Your task to perform on an android device: Search for the best gaming monitor on Best Buy Image 0: 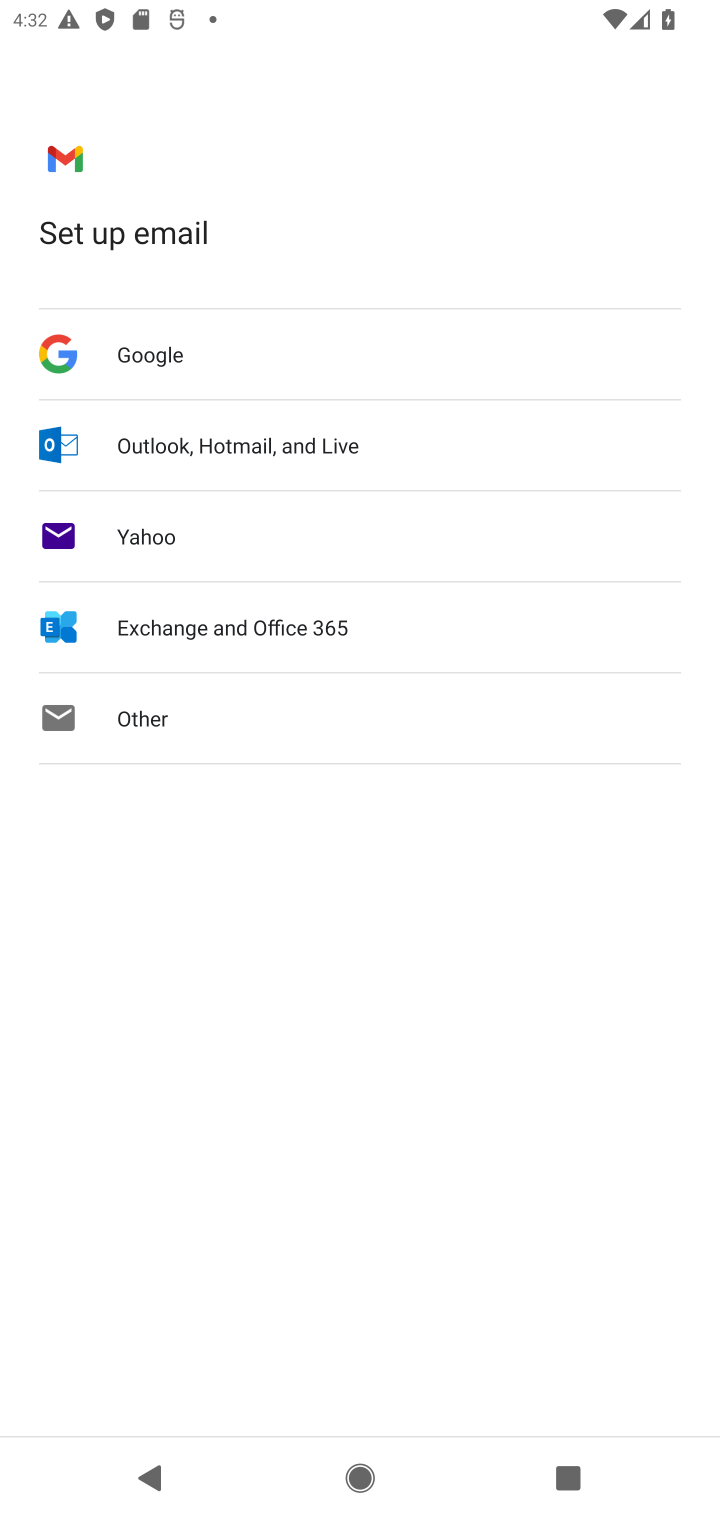
Step 0: press home button
Your task to perform on an android device: Search for the best gaming monitor on Best Buy Image 1: 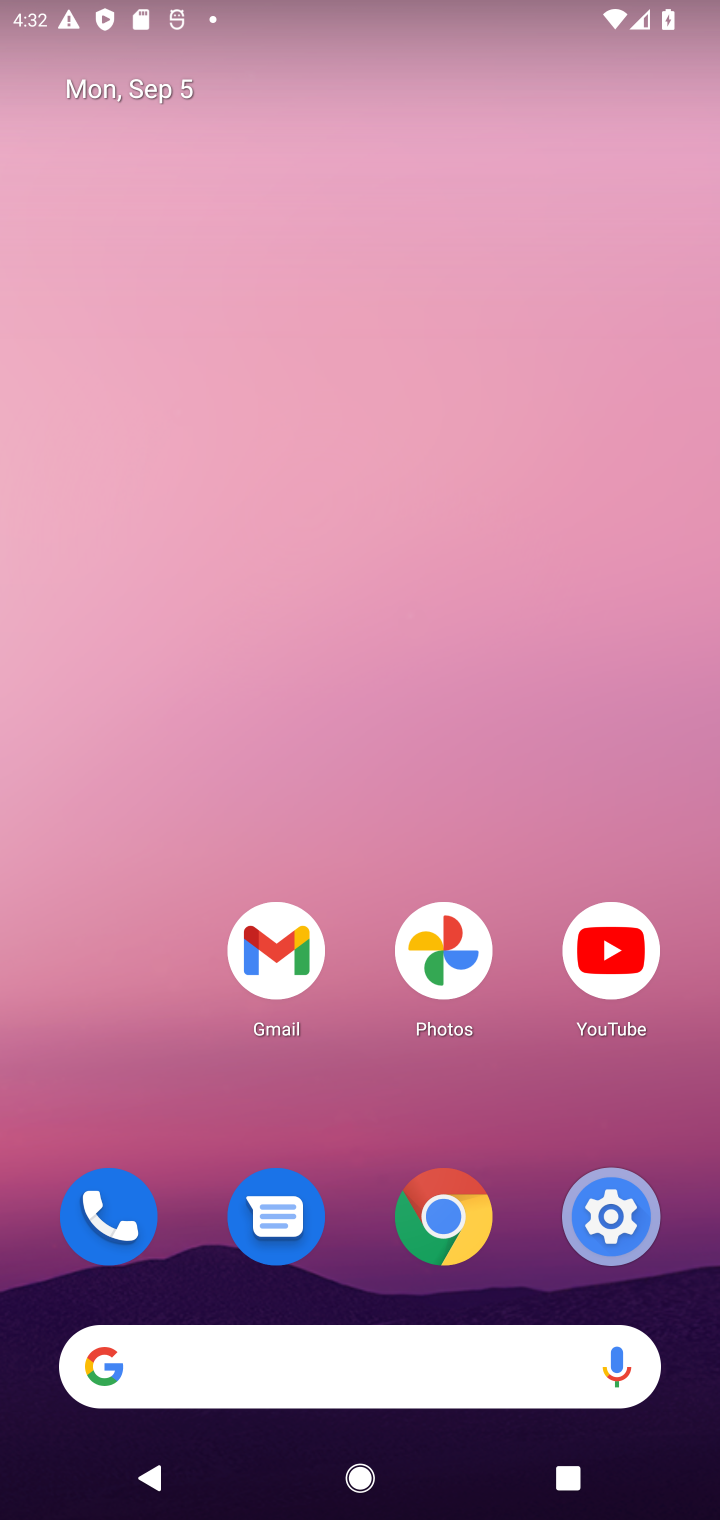
Step 1: click (97, 1364)
Your task to perform on an android device: Search for the best gaming monitor on Best Buy Image 2: 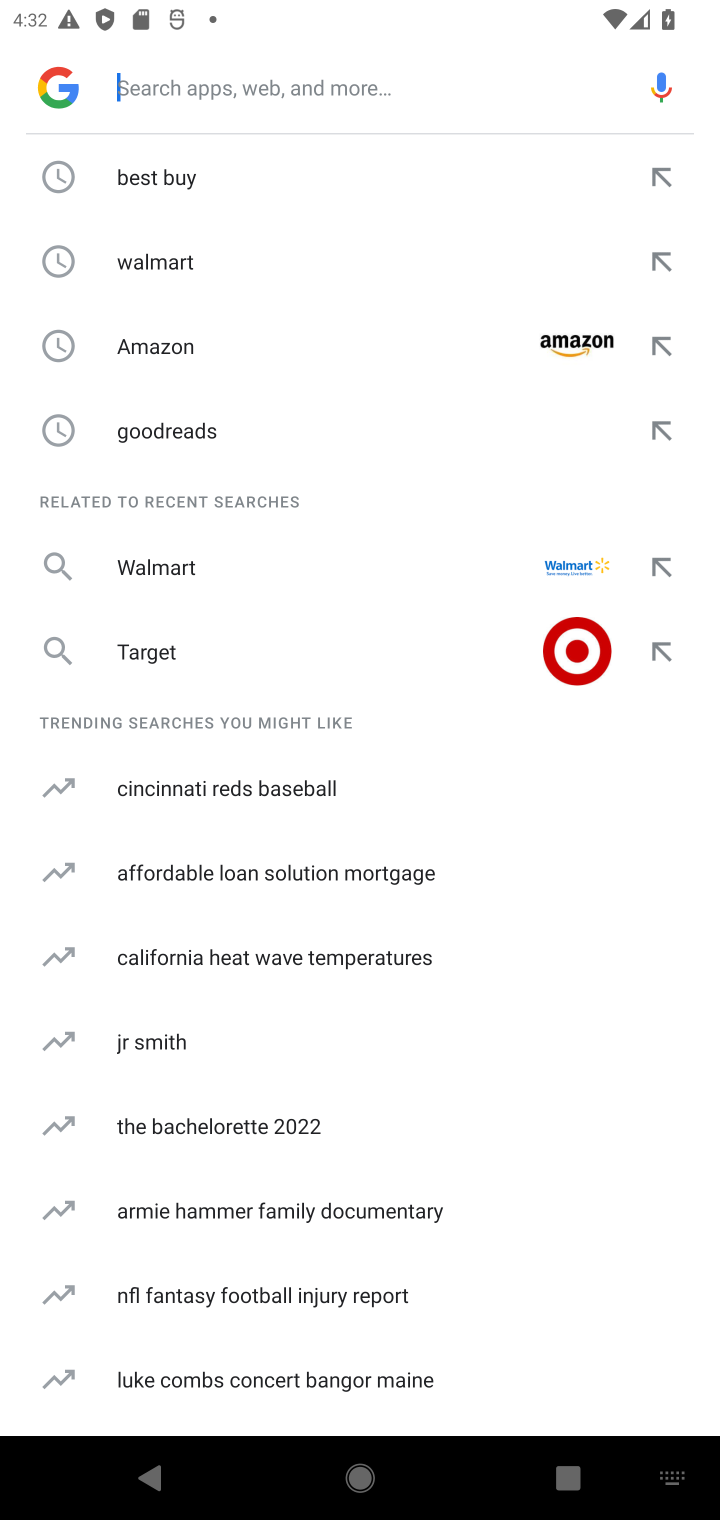
Step 2: type "Best Buy"
Your task to perform on an android device: Search for the best gaming monitor on Best Buy Image 3: 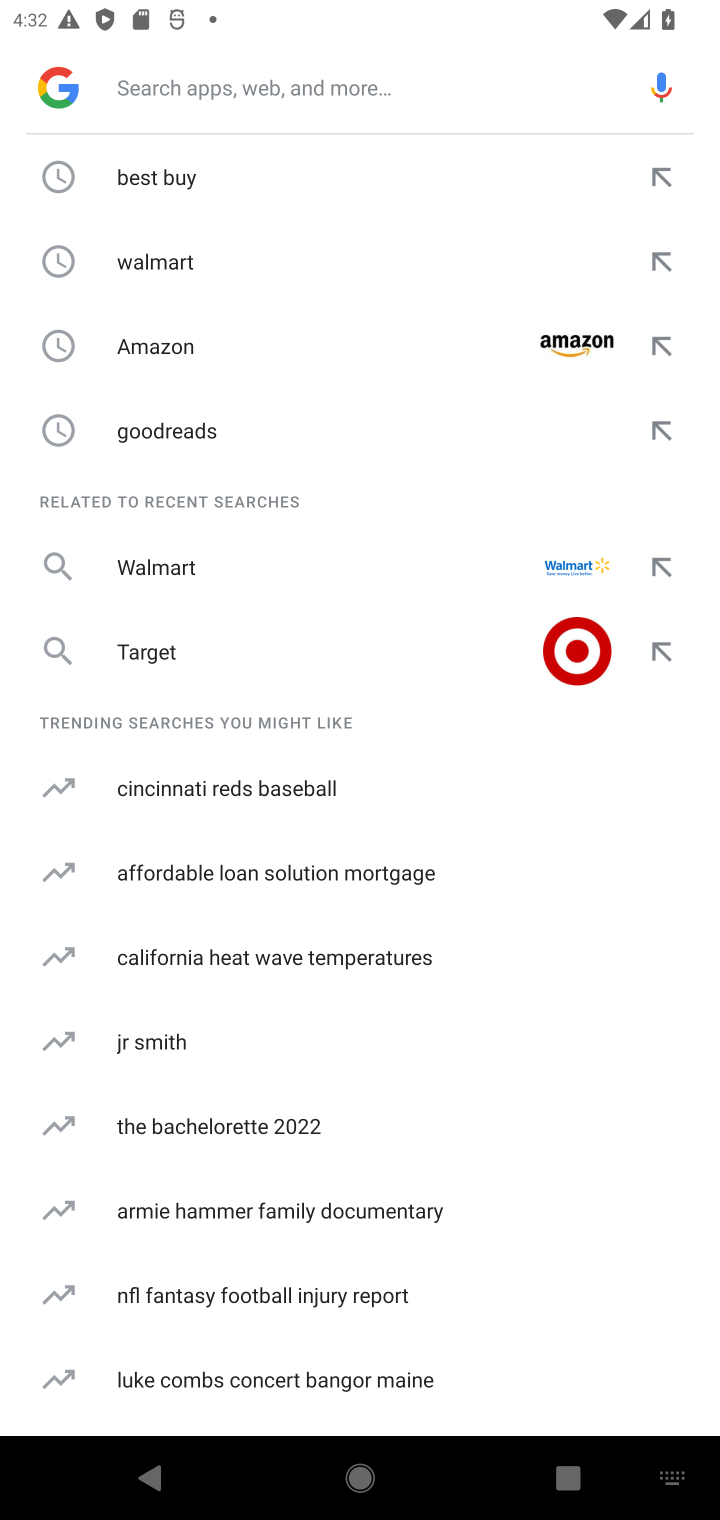
Step 3: click (200, 89)
Your task to perform on an android device: Search for the best gaming monitor on Best Buy Image 4: 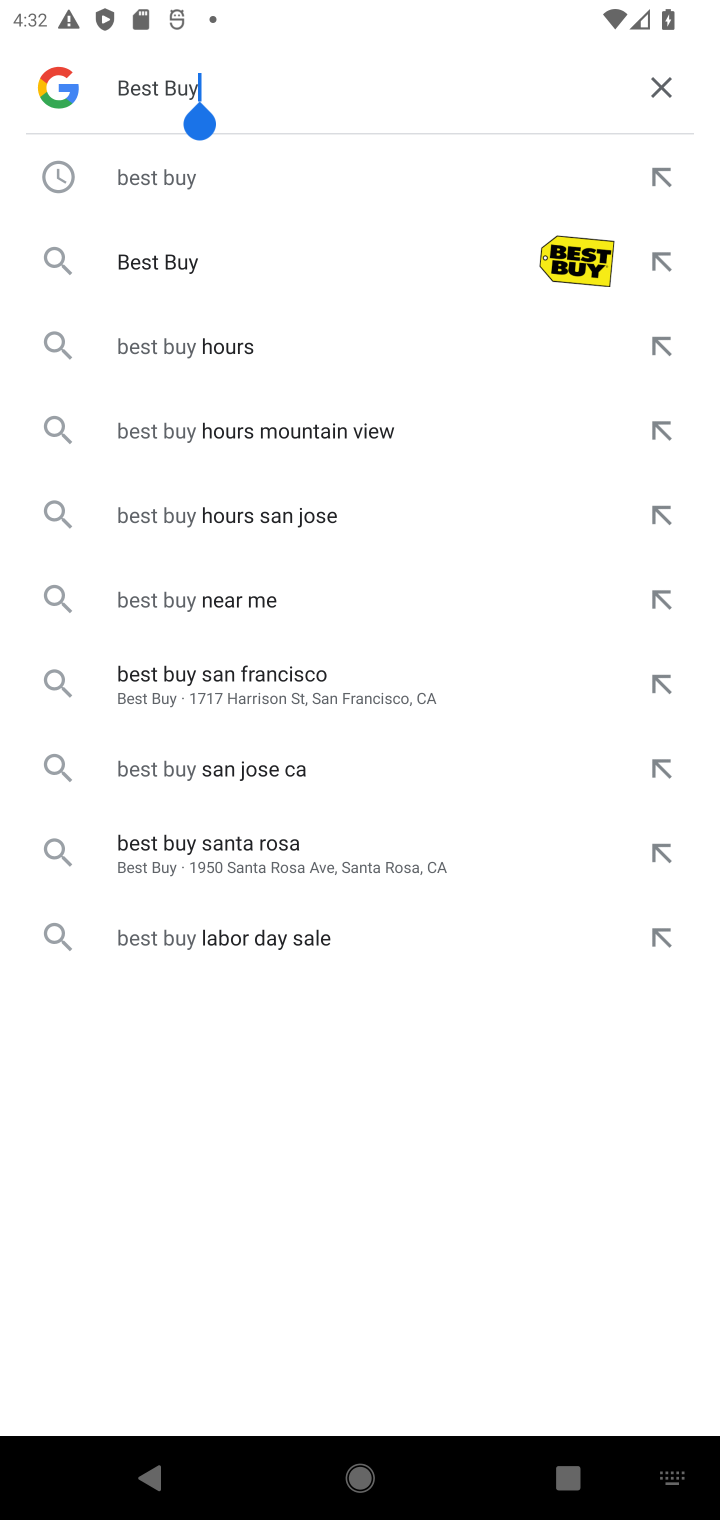
Step 4: press enter
Your task to perform on an android device: Search for the best gaming monitor on Best Buy Image 5: 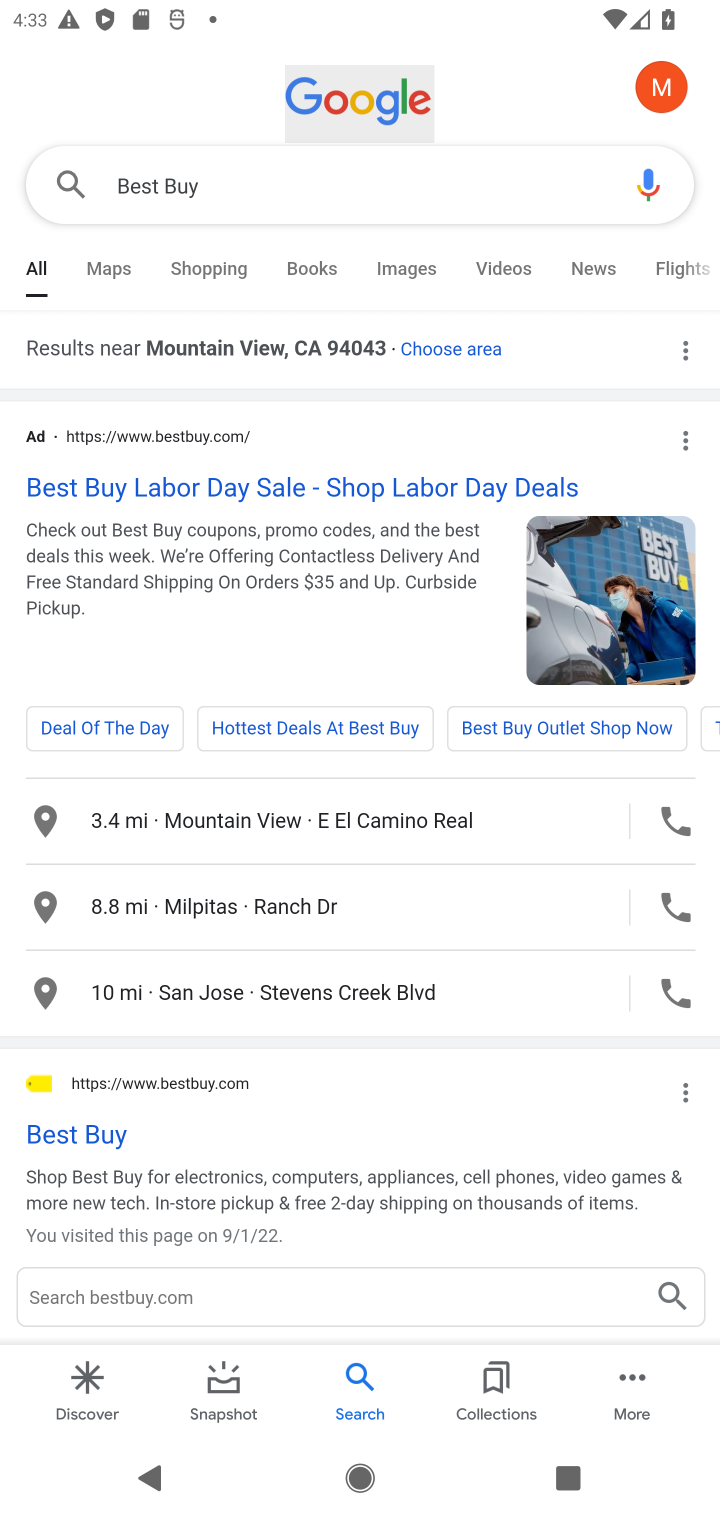
Step 5: click (57, 1126)
Your task to perform on an android device: Search for the best gaming monitor on Best Buy Image 6: 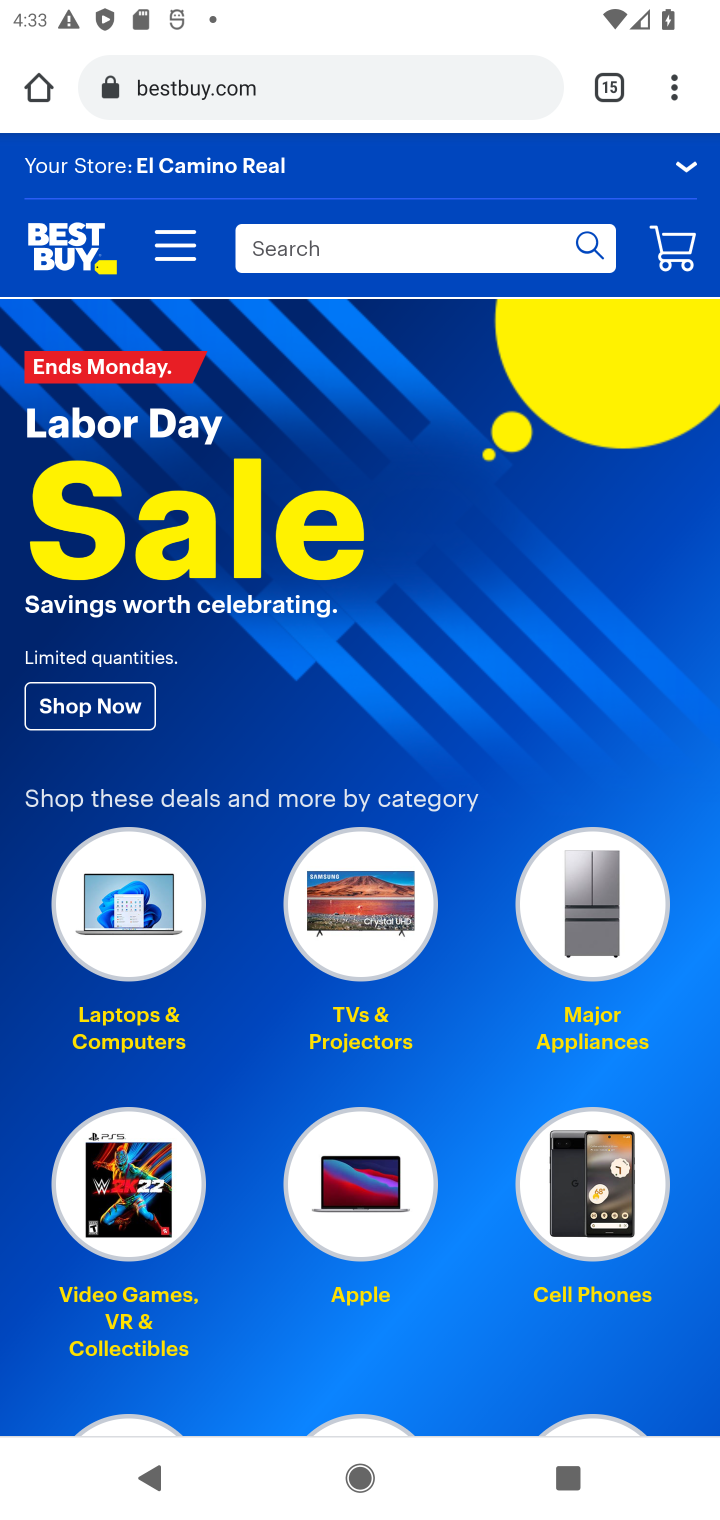
Step 6: click (355, 237)
Your task to perform on an android device: Search for the best gaming monitor on Best Buy Image 7: 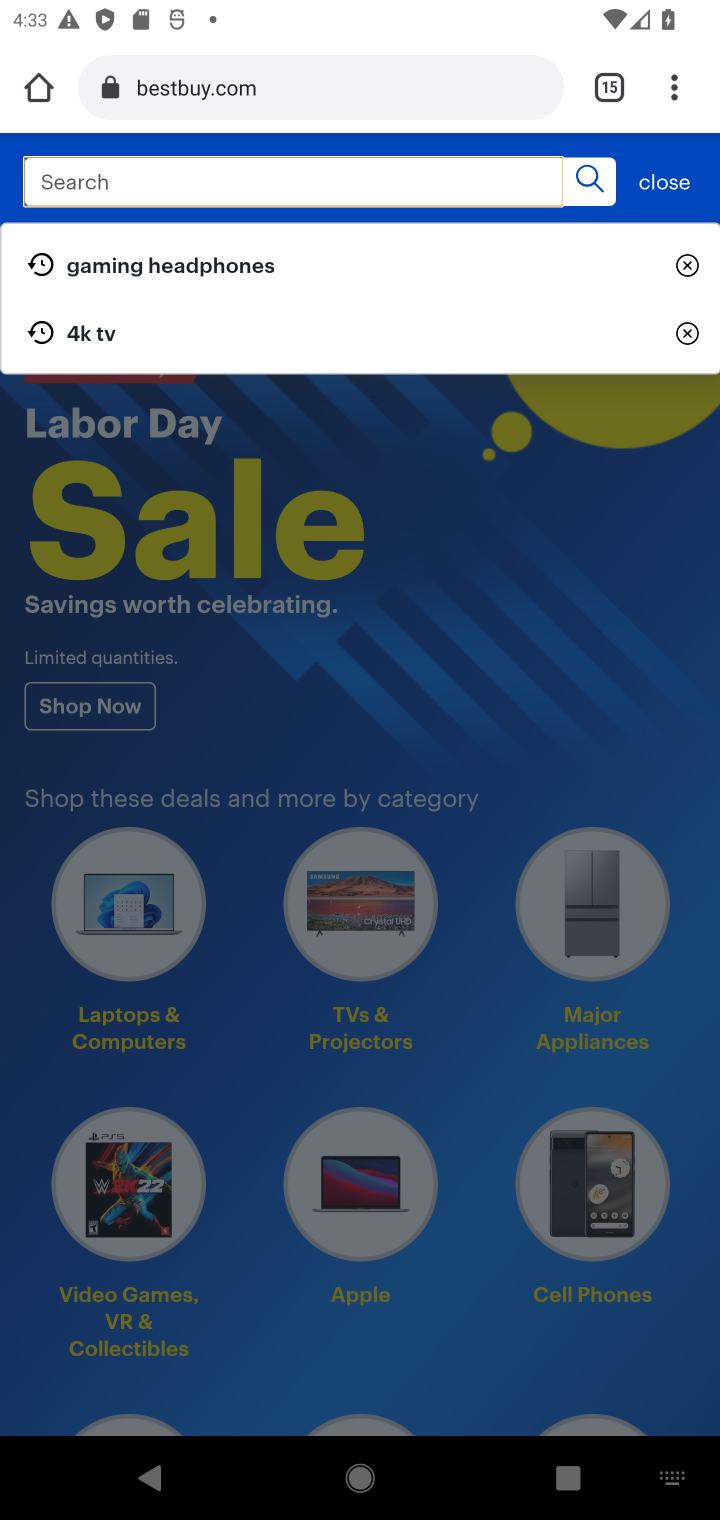
Step 7: type "gaming monitor"
Your task to perform on an android device: Search for the best gaming monitor on Best Buy Image 8: 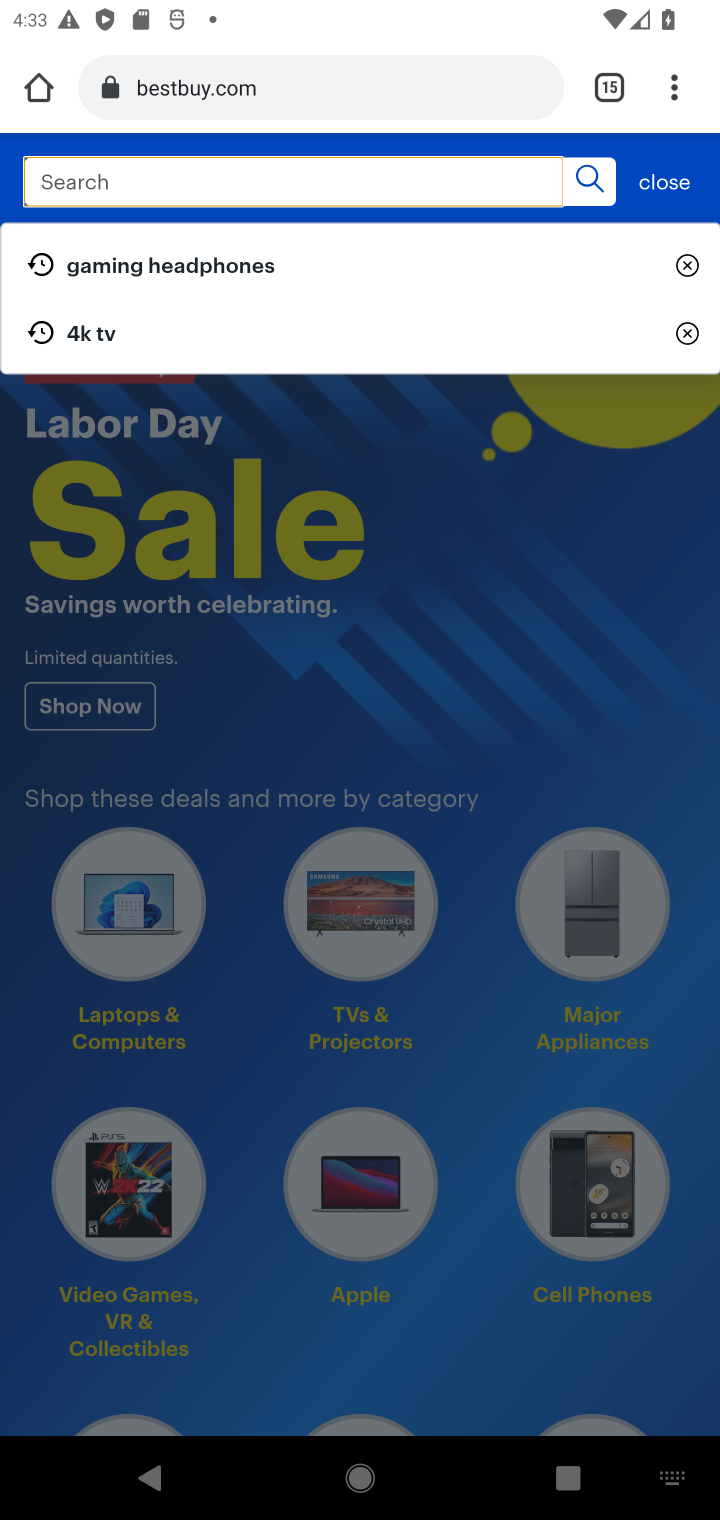
Step 8: click (223, 182)
Your task to perform on an android device: Search for the best gaming monitor on Best Buy Image 9: 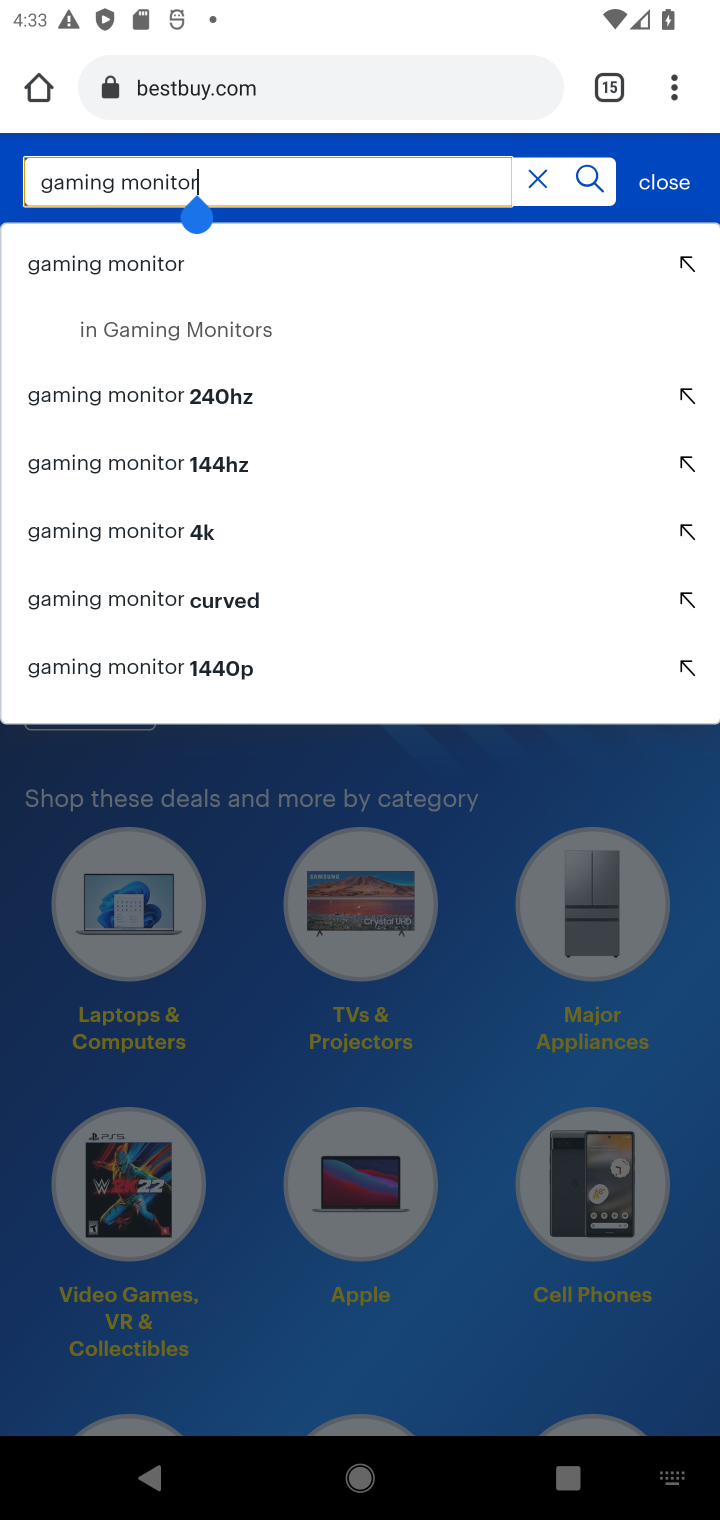
Step 9: press enter
Your task to perform on an android device: Search for the best gaming monitor on Best Buy Image 10: 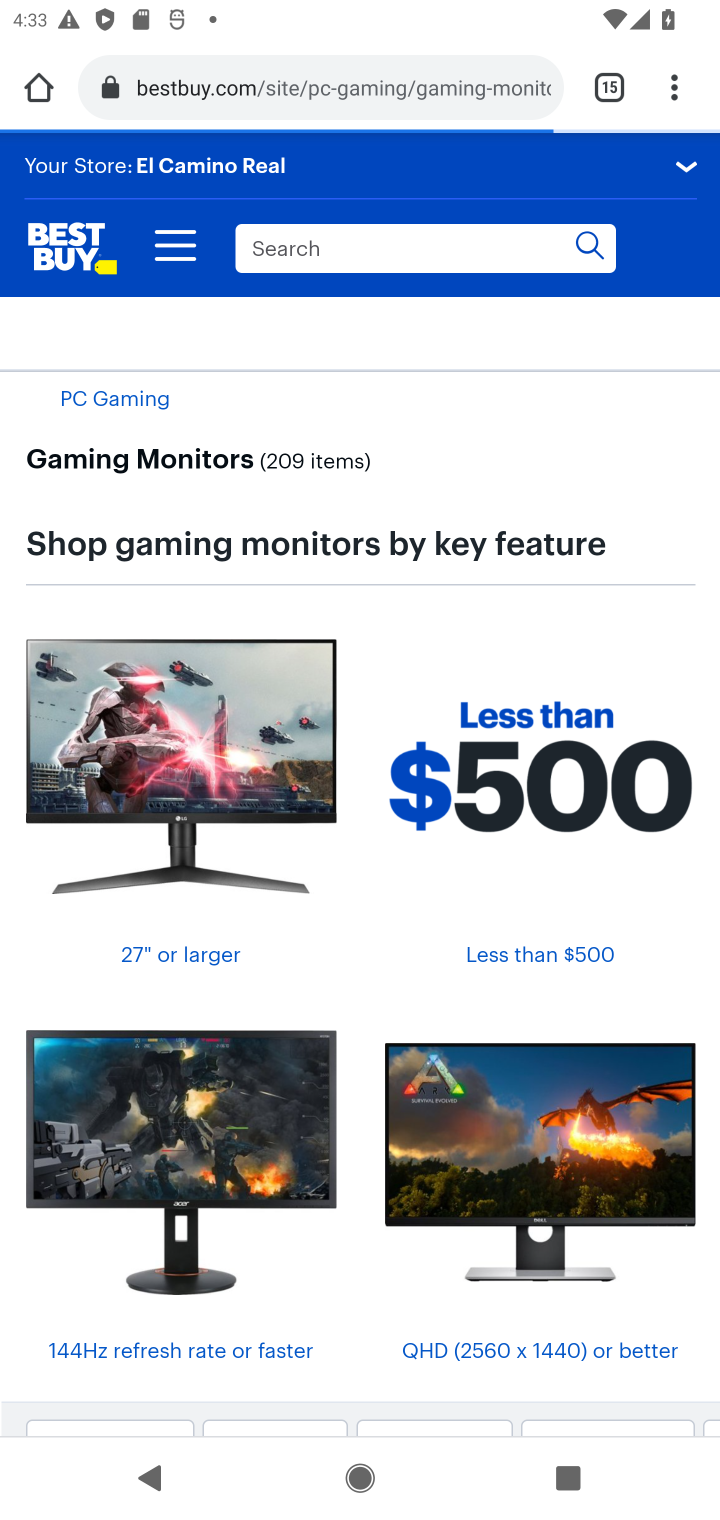
Step 10: task complete